Your task to perform on an android device: turn off notifications settings in the gmail app Image 0: 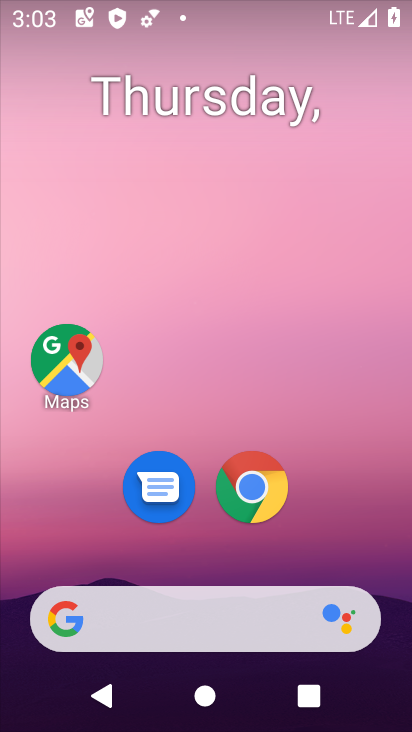
Step 0: drag from (357, 529) to (410, 118)
Your task to perform on an android device: turn off notifications settings in the gmail app Image 1: 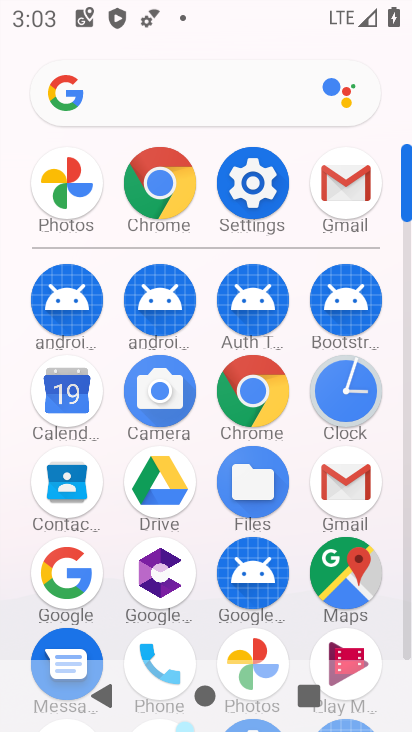
Step 1: drag from (324, 529) to (341, 278)
Your task to perform on an android device: turn off notifications settings in the gmail app Image 2: 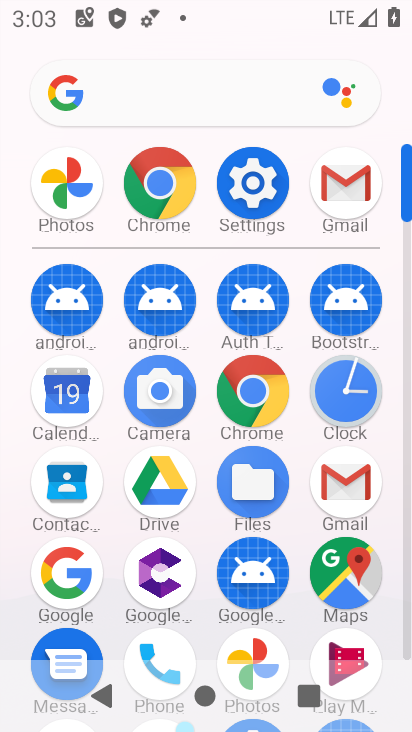
Step 2: click (347, 197)
Your task to perform on an android device: turn off notifications settings in the gmail app Image 3: 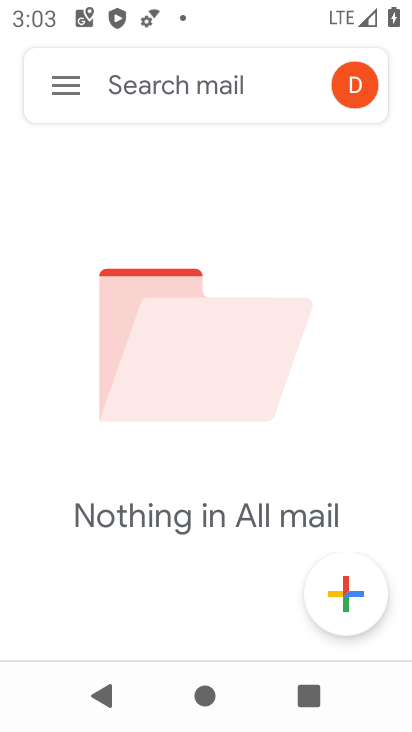
Step 3: click (69, 98)
Your task to perform on an android device: turn off notifications settings in the gmail app Image 4: 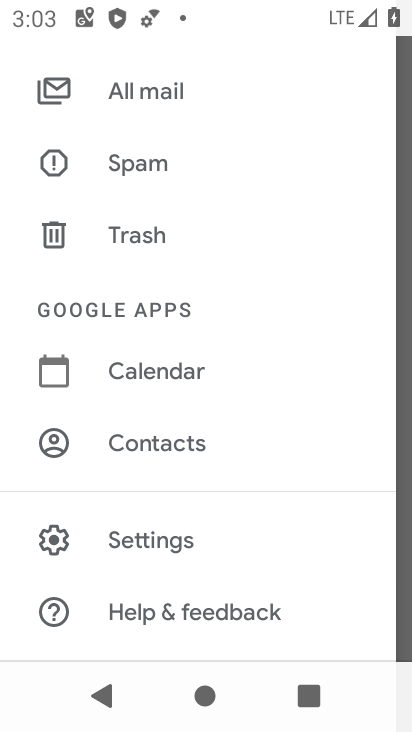
Step 4: click (151, 546)
Your task to perform on an android device: turn off notifications settings in the gmail app Image 5: 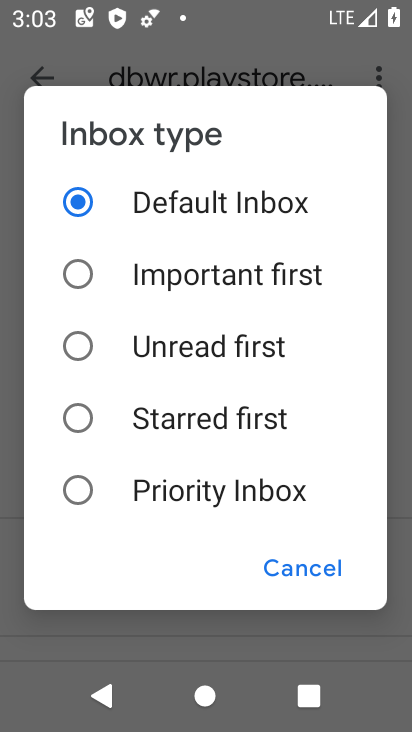
Step 5: click (283, 571)
Your task to perform on an android device: turn off notifications settings in the gmail app Image 6: 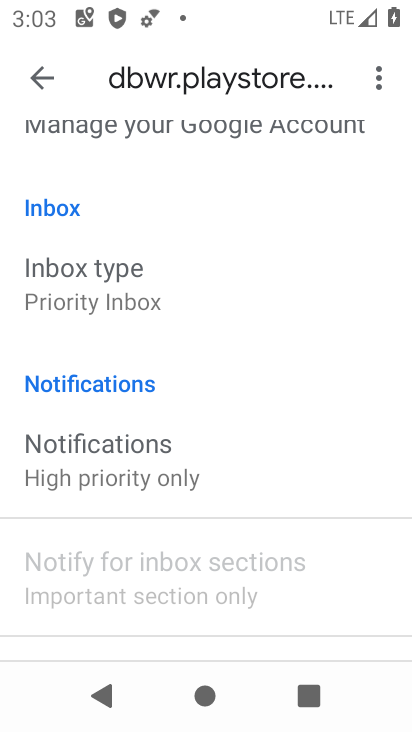
Step 6: drag from (141, 288) to (201, 609)
Your task to perform on an android device: turn off notifications settings in the gmail app Image 7: 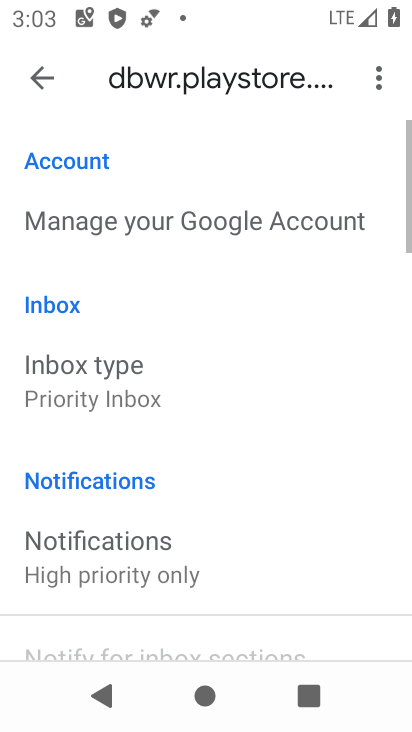
Step 7: drag from (172, 253) to (214, 219)
Your task to perform on an android device: turn off notifications settings in the gmail app Image 8: 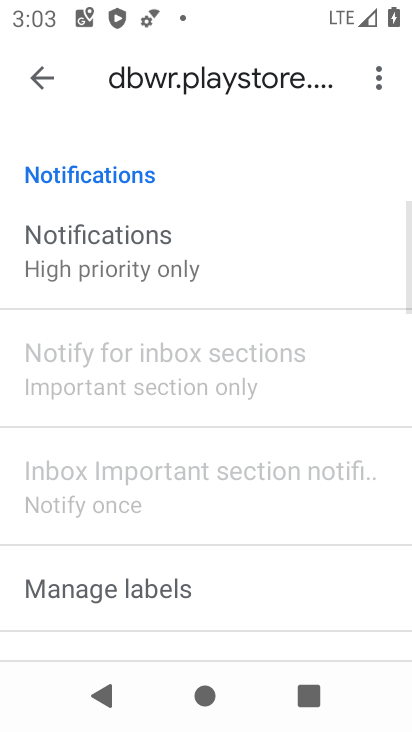
Step 8: click (107, 246)
Your task to perform on an android device: turn off notifications settings in the gmail app Image 9: 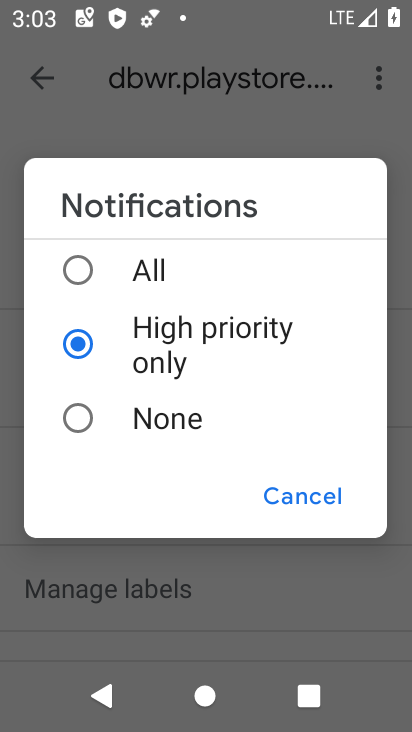
Step 9: click (115, 423)
Your task to perform on an android device: turn off notifications settings in the gmail app Image 10: 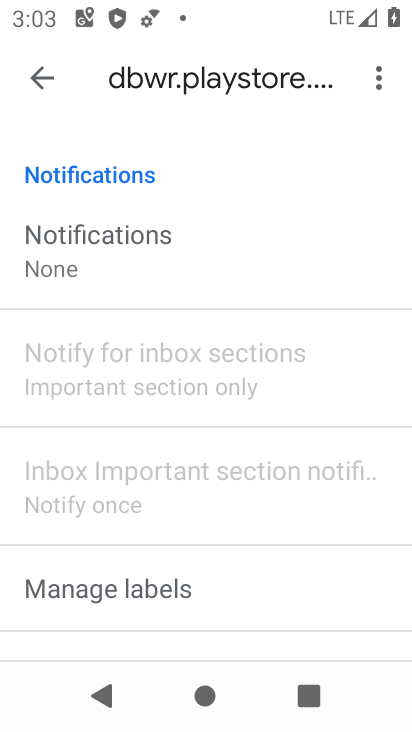
Step 10: task complete